Your task to perform on an android device: Open calendar and show me the third week of next month Image 0: 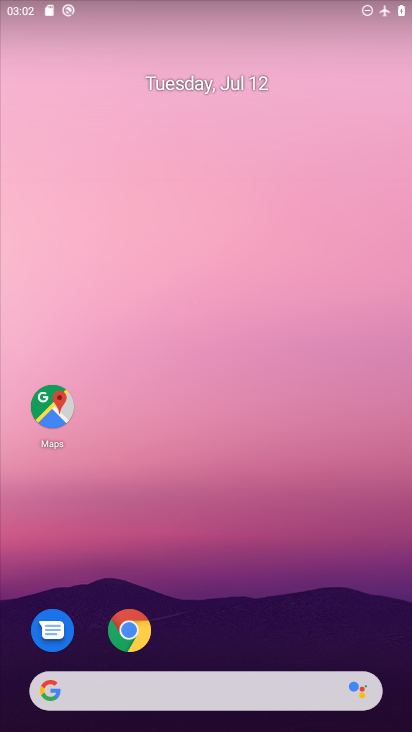
Step 0: drag from (400, 650) to (360, 94)
Your task to perform on an android device: Open calendar and show me the third week of next month Image 1: 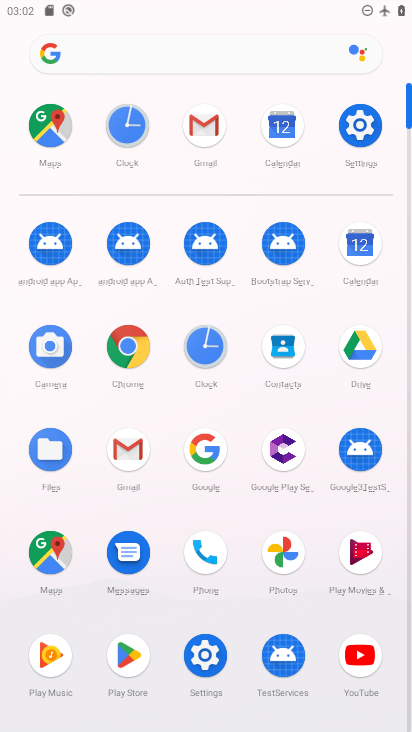
Step 1: click (358, 245)
Your task to perform on an android device: Open calendar and show me the third week of next month Image 2: 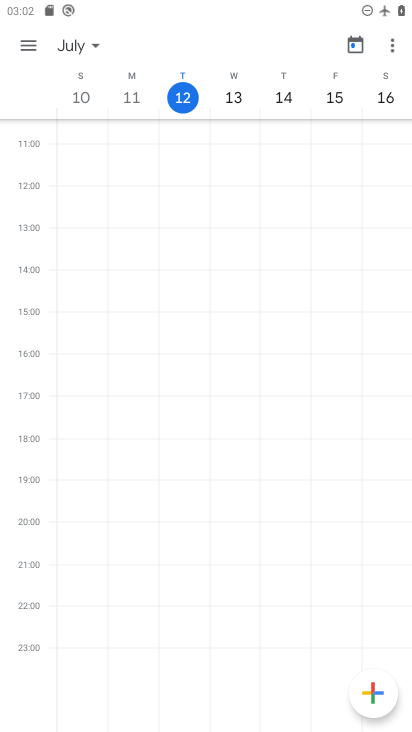
Step 2: click (94, 43)
Your task to perform on an android device: Open calendar and show me the third week of next month Image 3: 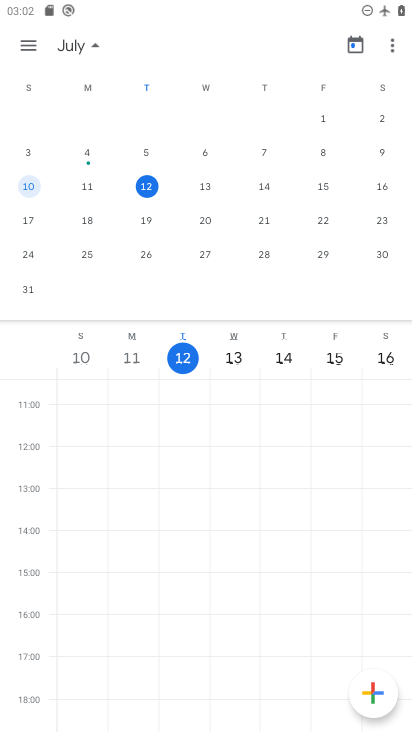
Step 3: drag from (381, 218) to (48, 192)
Your task to perform on an android device: Open calendar and show me the third week of next month Image 4: 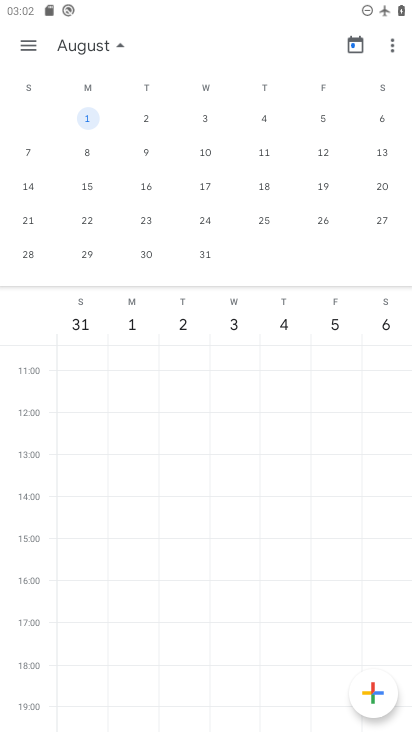
Step 4: click (27, 222)
Your task to perform on an android device: Open calendar and show me the third week of next month Image 5: 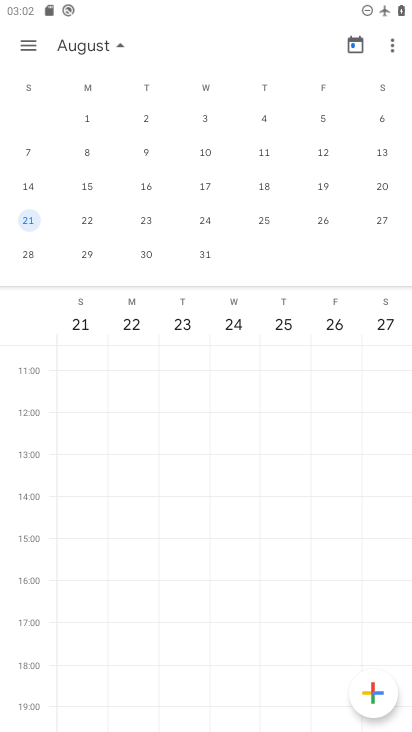
Step 5: task complete